Your task to perform on an android device: change notifications settings Image 0: 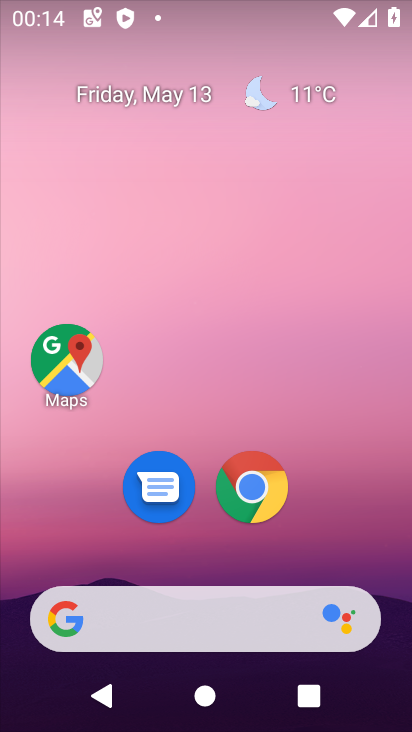
Step 0: drag from (209, 561) to (249, 238)
Your task to perform on an android device: change notifications settings Image 1: 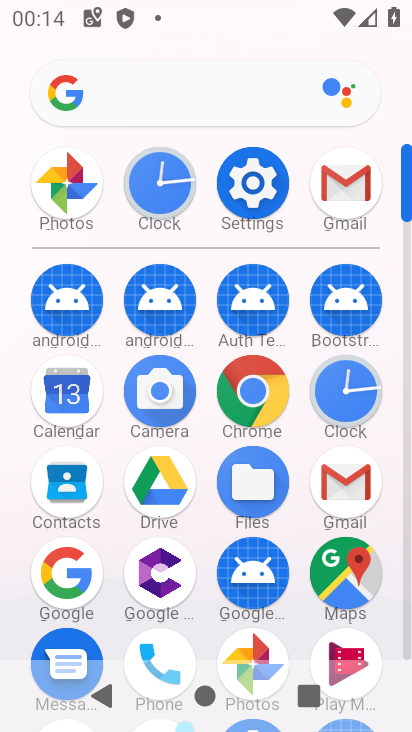
Step 1: click (255, 159)
Your task to perform on an android device: change notifications settings Image 2: 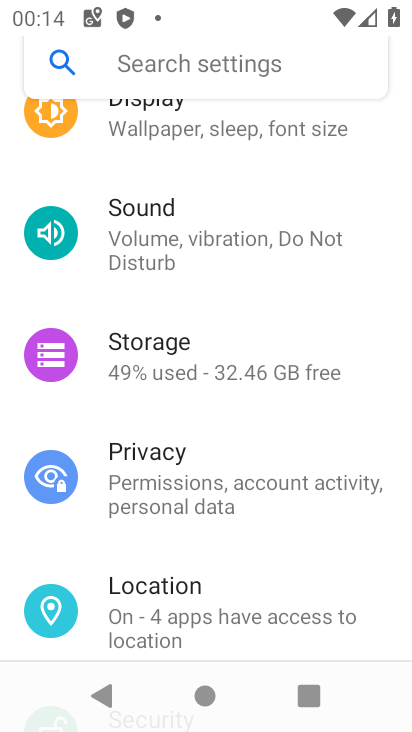
Step 2: drag from (187, 553) to (256, 92)
Your task to perform on an android device: change notifications settings Image 3: 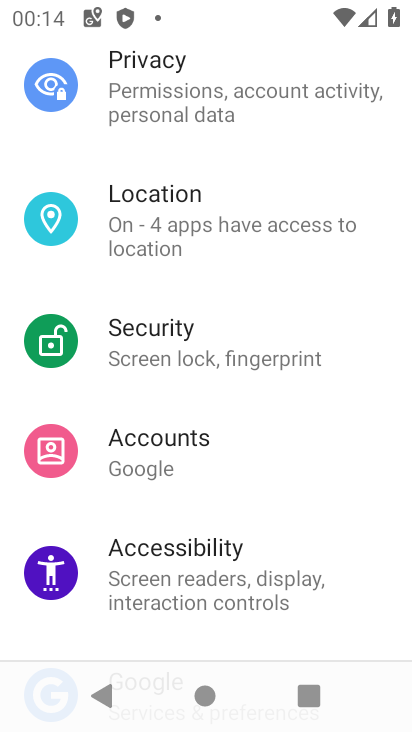
Step 3: drag from (268, 382) to (258, 203)
Your task to perform on an android device: change notifications settings Image 4: 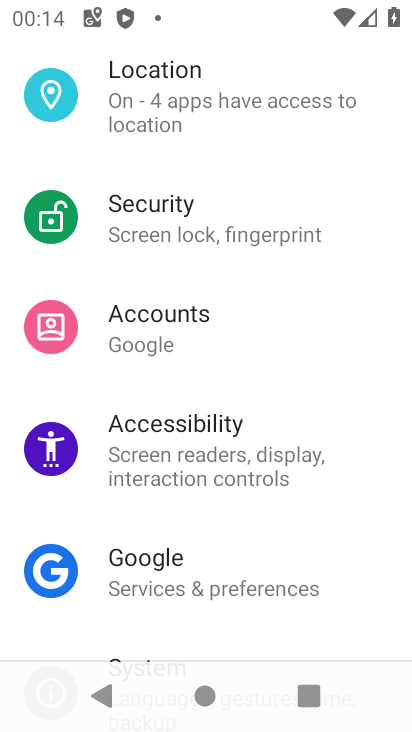
Step 4: drag from (202, 171) to (178, 533)
Your task to perform on an android device: change notifications settings Image 5: 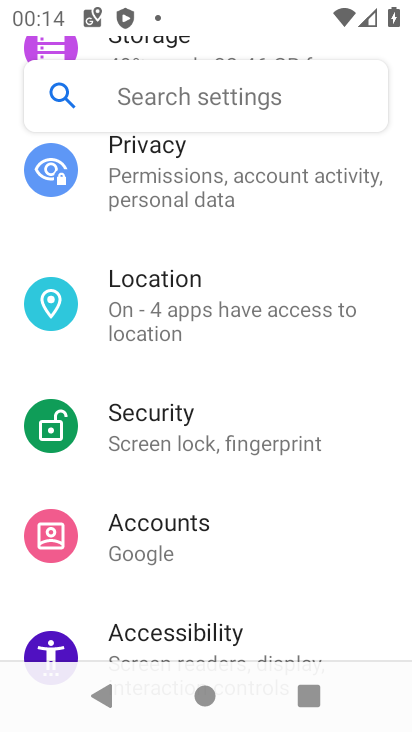
Step 5: drag from (199, 227) to (200, 581)
Your task to perform on an android device: change notifications settings Image 6: 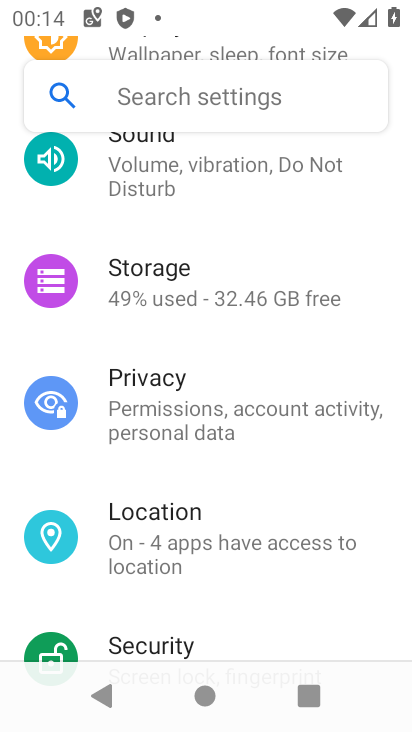
Step 6: drag from (232, 238) to (220, 609)
Your task to perform on an android device: change notifications settings Image 7: 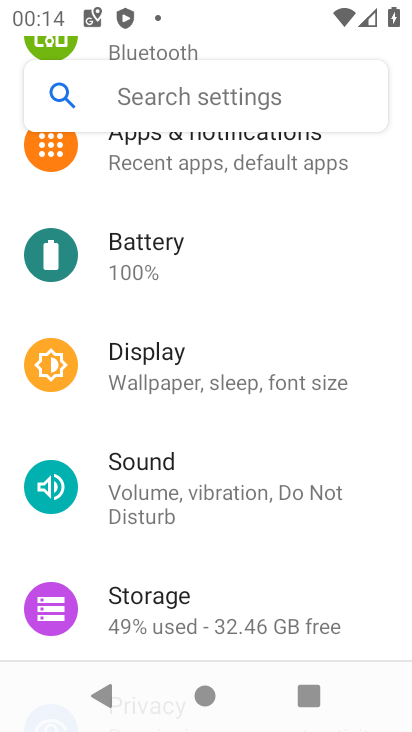
Step 7: click (204, 177)
Your task to perform on an android device: change notifications settings Image 8: 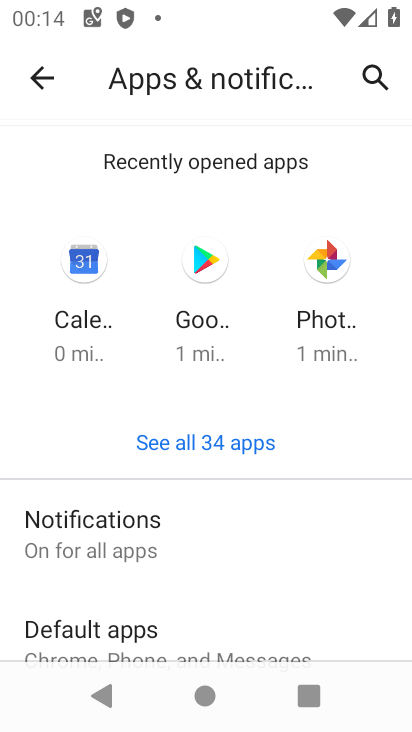
Step 8: click (117, 533)
Your task to perform on an android device: change notifications settings Image 9: 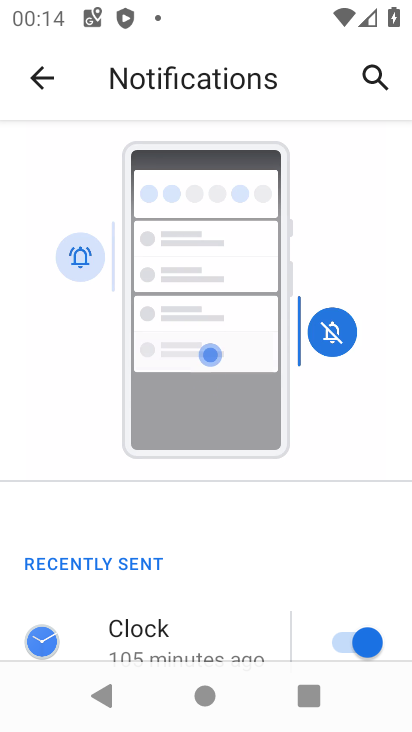
Step 9: drag from (145, 622) to (240, 118)
Your task to perform on an android device: change notifications settings Image 10: 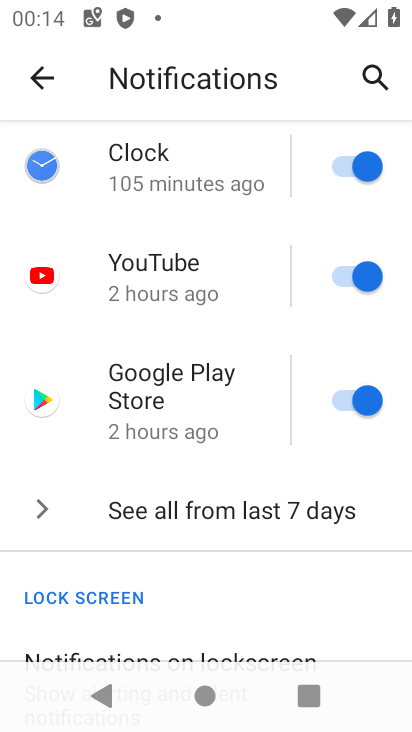
Step 10: drag from (168, 579) to (215, 243)
Your task to perform on an android device: change notifications settings Image 11: 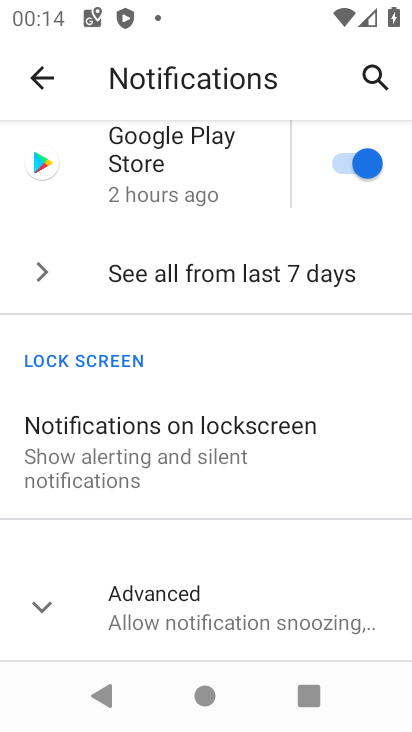
Step 11: click (162, 596)
Your task to perform on an android device: change notifications settings Image 12: 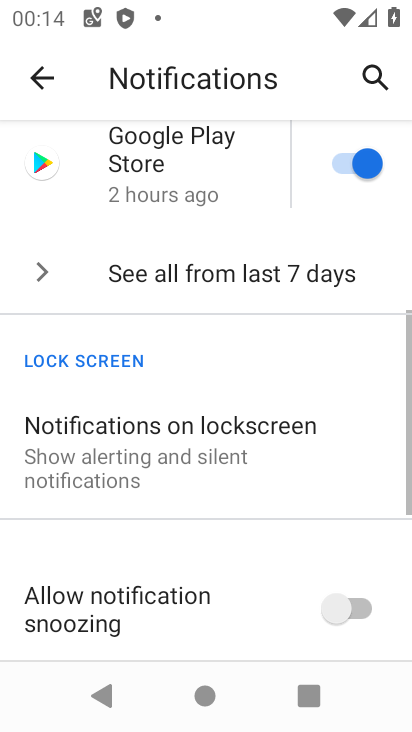
Step 12: drag from (162, 596) to (174, 292)
Your task to perform on an android device: change notifications settings Image 13: 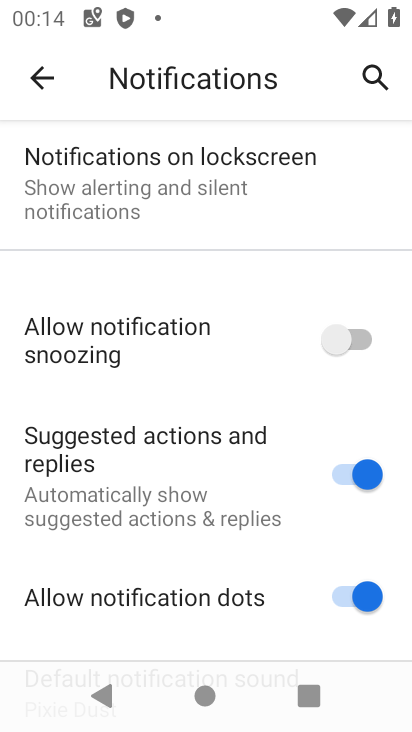
Step 13: click (354, 597)
Your task to perform on an android device: change notifications settings Image 14: 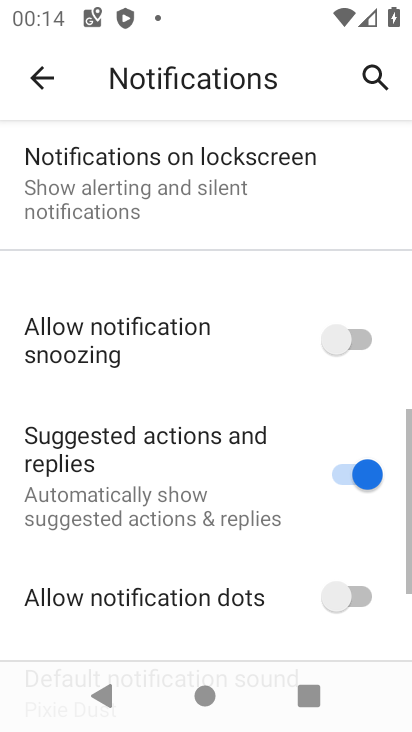
Step 14: click (354, 489)
Your task to perform on an android device: change notifications settings Image 15: 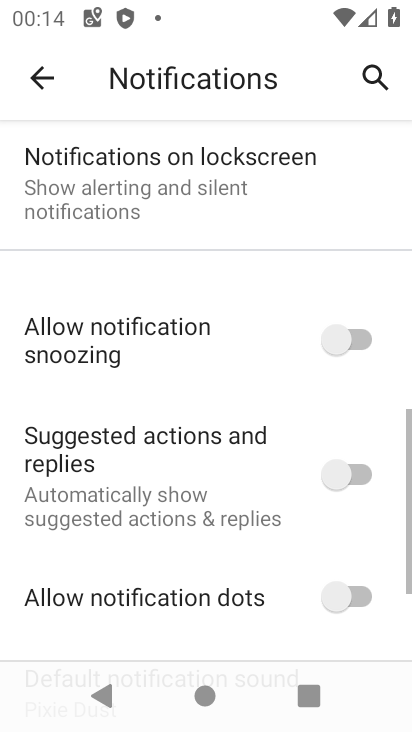
Step 15: click (366, 336)
Your task to perform on an android device: change notifications settings Image 16: 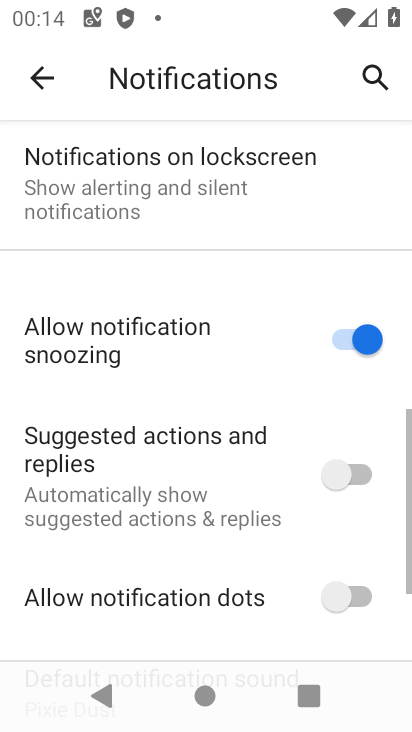
Step 16: task complete